Your task to perform on an android device: Toggle the flashlight Image 0: 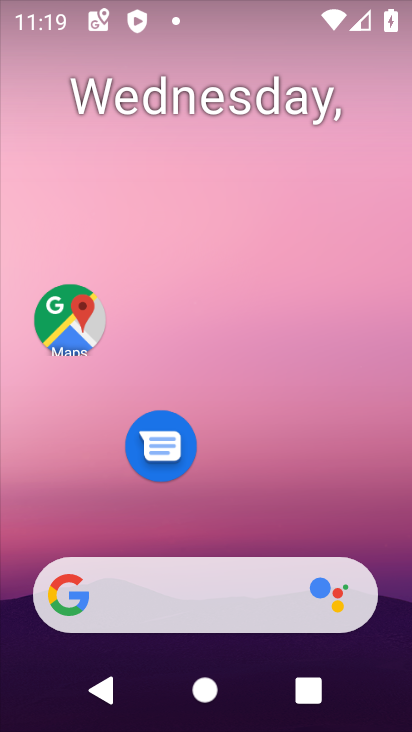
Step 0: drag from (257, 387) to (190, 99)
Your task to perform on an android device: Toggle the flashlight Image 1: 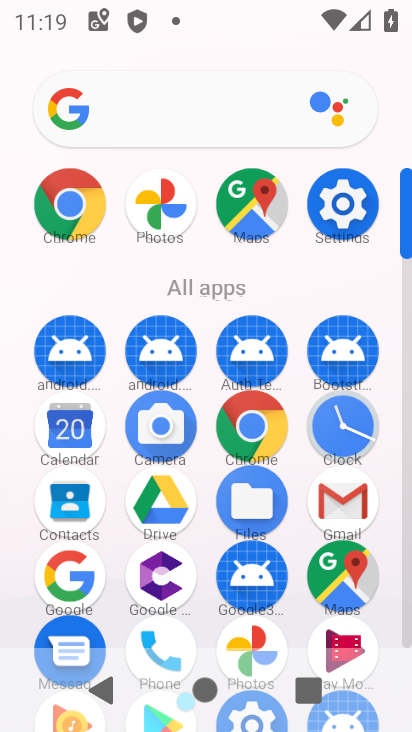
Step 1: click (346, 217)
Your task to perform on an android device: Toggle the flashlight Image 2: 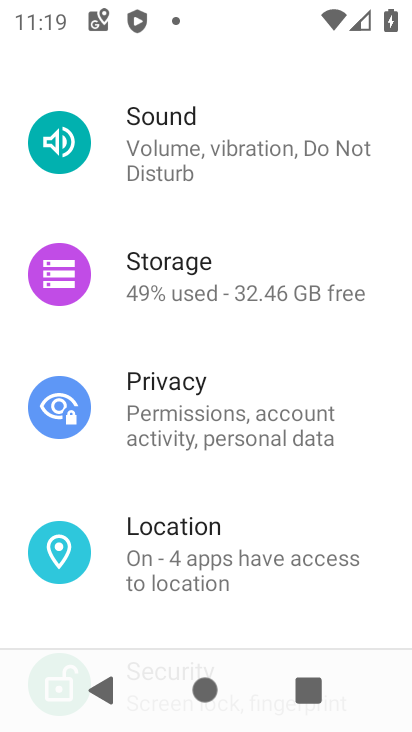
Step 2: drag from (213, 173) to (200, 495)
Your task to perform on an android device: Toggle the flashlight Image 3: 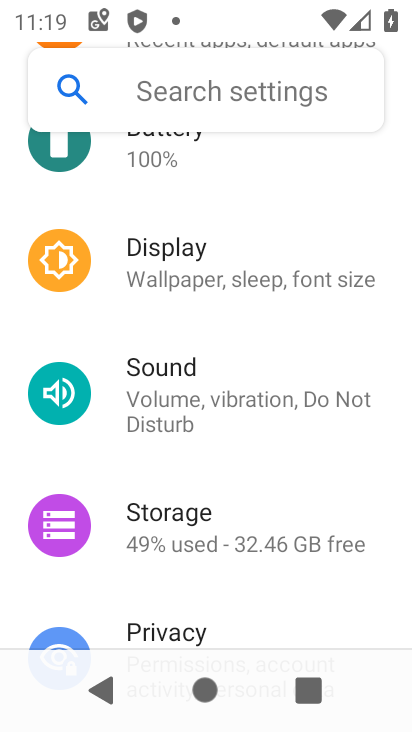
Step 3: click (195, 124)
Your task to perform on an android device: Toggle the flashlight Image 4: 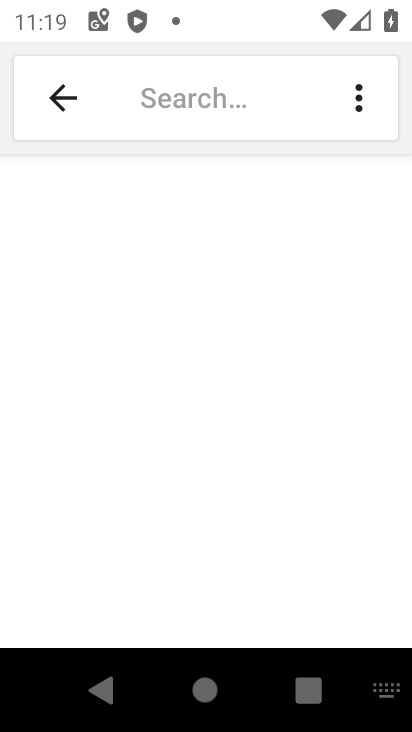
Step 4: type "flashlight"
Your task to perform on an android device: Toggle the flashlight Image 5: 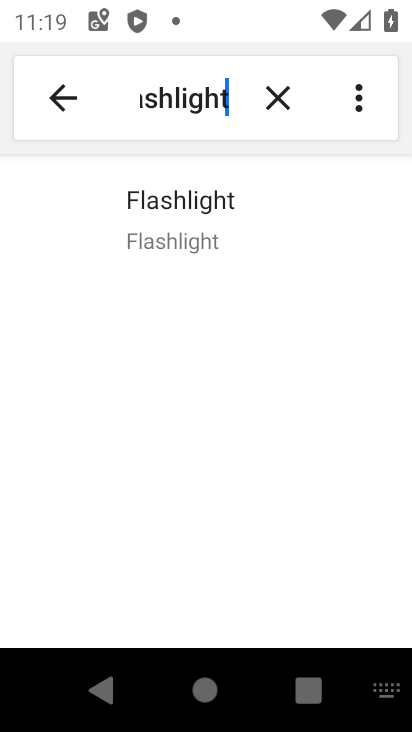
Step 5: click (191, 227)
Your task to perform on an android device: Toggle the flashlight Image 6: 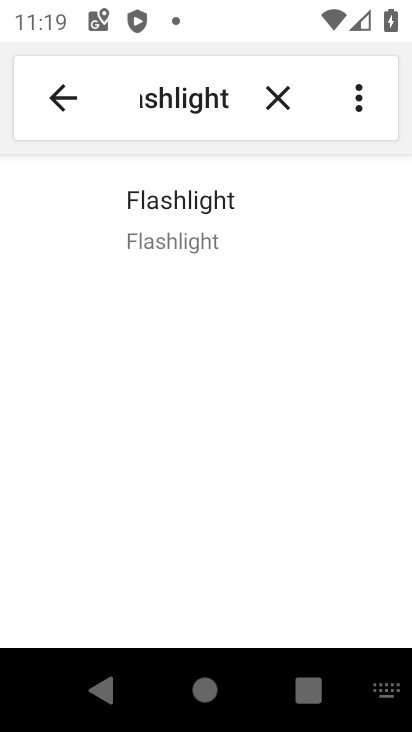
Step 6: click (191, 227)
Your task to perform on an android device: Toggle the flashlight Image 7: 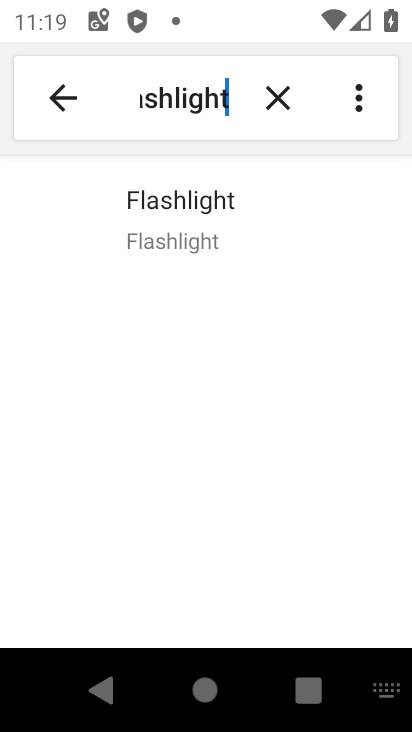
Step 7: task complete